Your task to perform on an android device: check battery use Image 0: 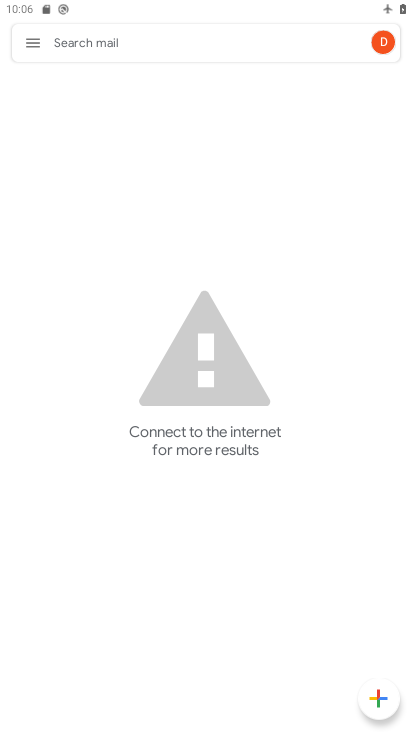
Step 0: press home button
Your task to perform on an android device: check battery use Image 1: 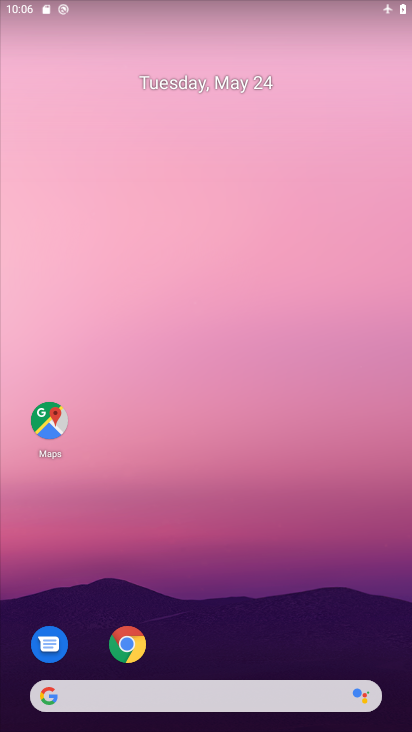
Step 1: drag from (228, 536) to (130, 156)
Your task to perform on an android device: check battery use Image 2: 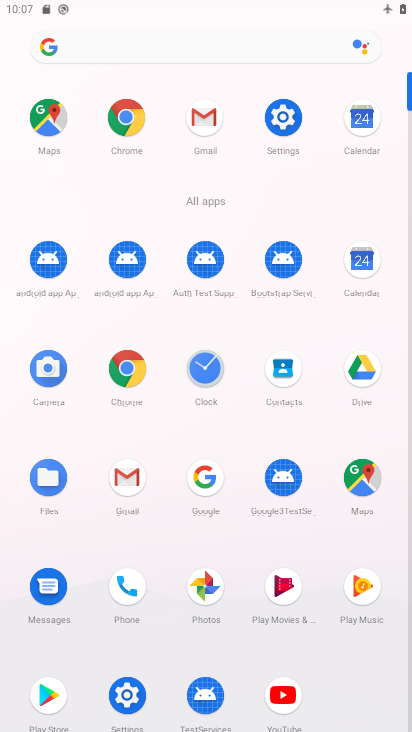
Step 2: click (283, 127)
Your task to perform on an android device: check battery use Image 3: 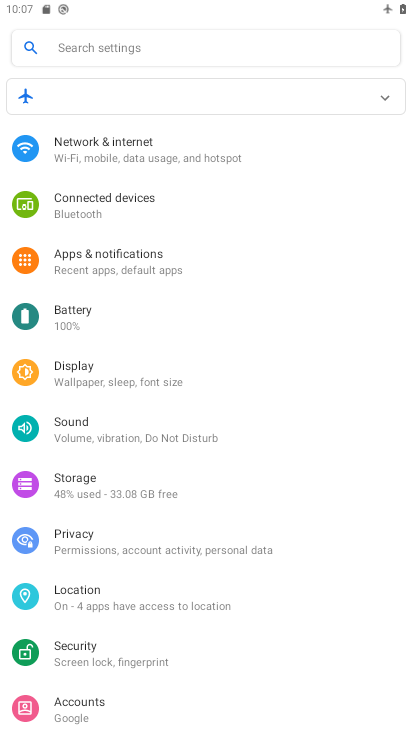
Step 3: click (64, 321)
Your task to perform on an android device: check battery use Image 4: 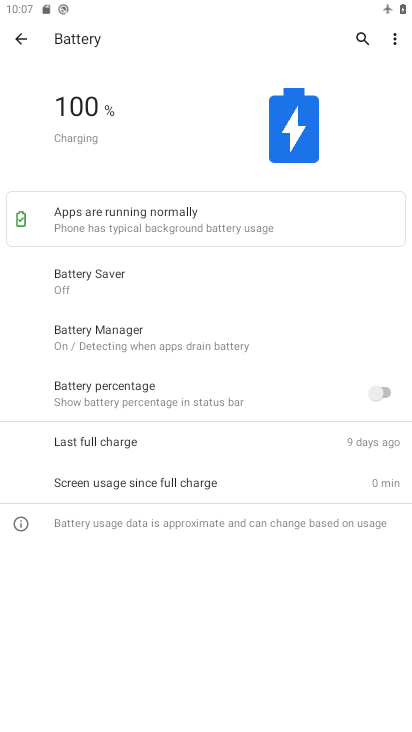
Step 4: task complete